Your task to perform on an android device: Do I have any events today? Image 0: 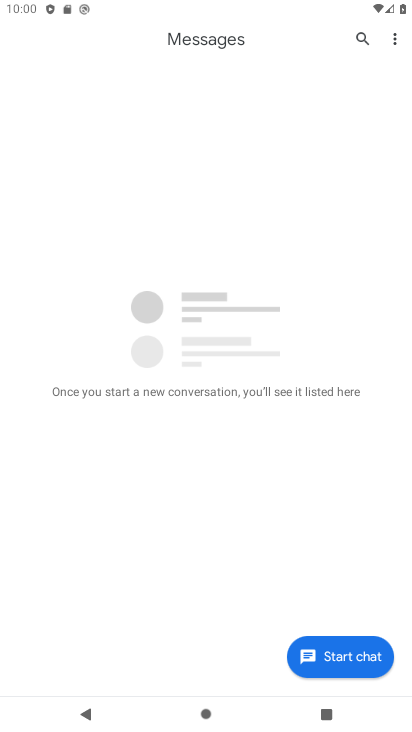
Step 0: press home button
Your task to perform on an android device: Do I have any events today? Image 1: 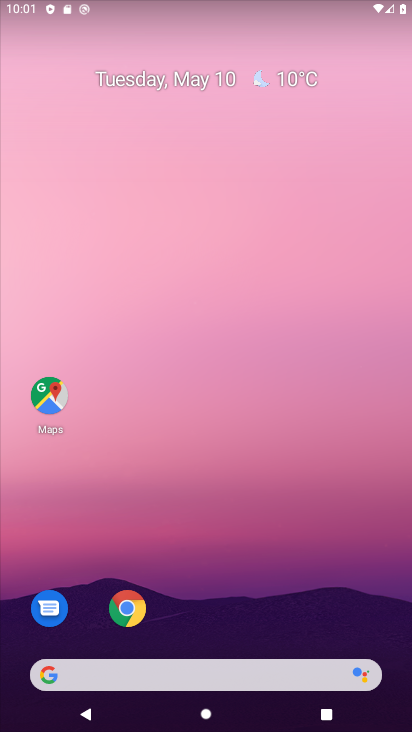
Step 1: drag from (300, 641) to (281, 39)
Your task to perform on an android device: Do I have any events today? Image 2: 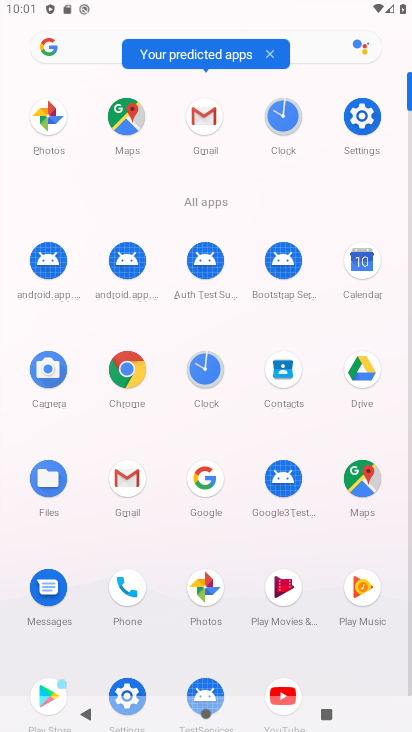
Step 2: click (364, 249)
Your task to perform on an android device: Do I have any events today? Image 3: 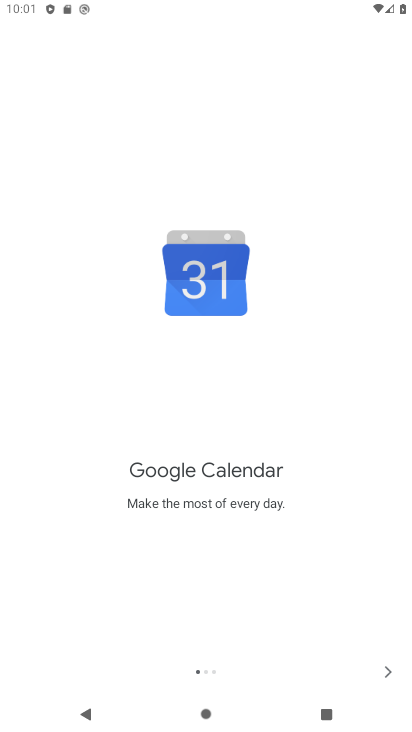
Step 3: drag from (309, 605) to (81, 571)
Your task to perform on an android device: Do I have any events today? Image 4: 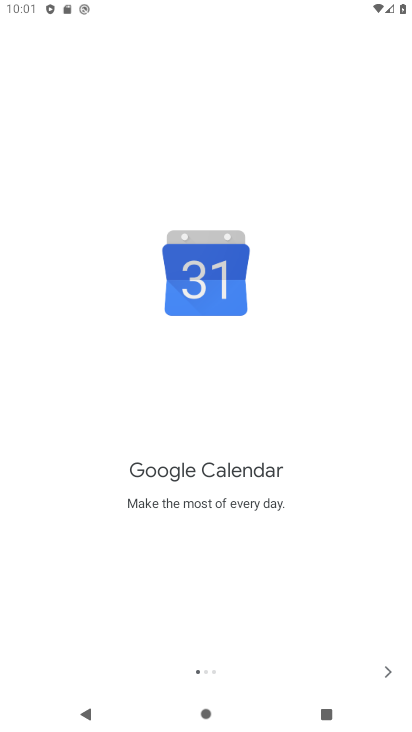
Step 4: drag from (353, 553) to (39, 465)
Your task to perform on an android device: Do I have any events today? Image 5: 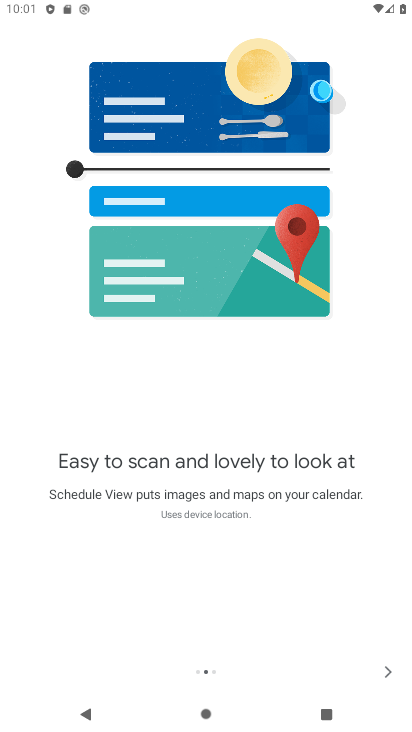
Step 5: drag from (372, 573) to (19, 505)
Your task to perform on an android device: Do I have any events today? Image 6: 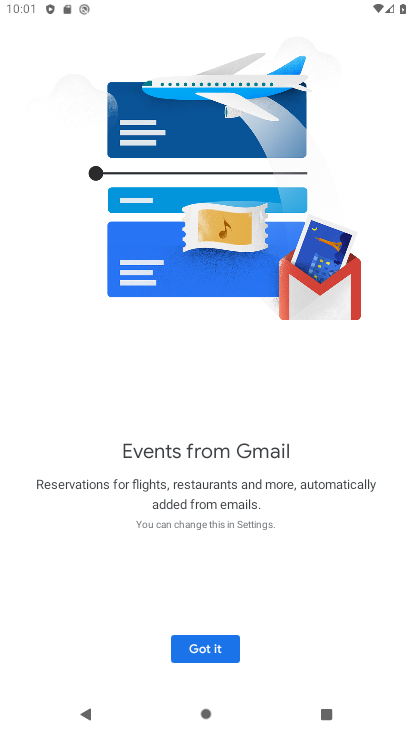
Step 6: click (221, 646)
Your task to perform on an android device: Do I have any events today? Image 7: 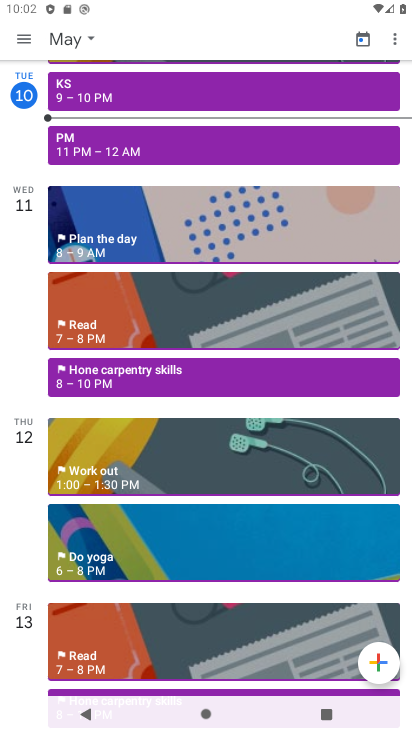
Step 7: task complete